Your task to perform on an android device: Go to eBay Image 0: 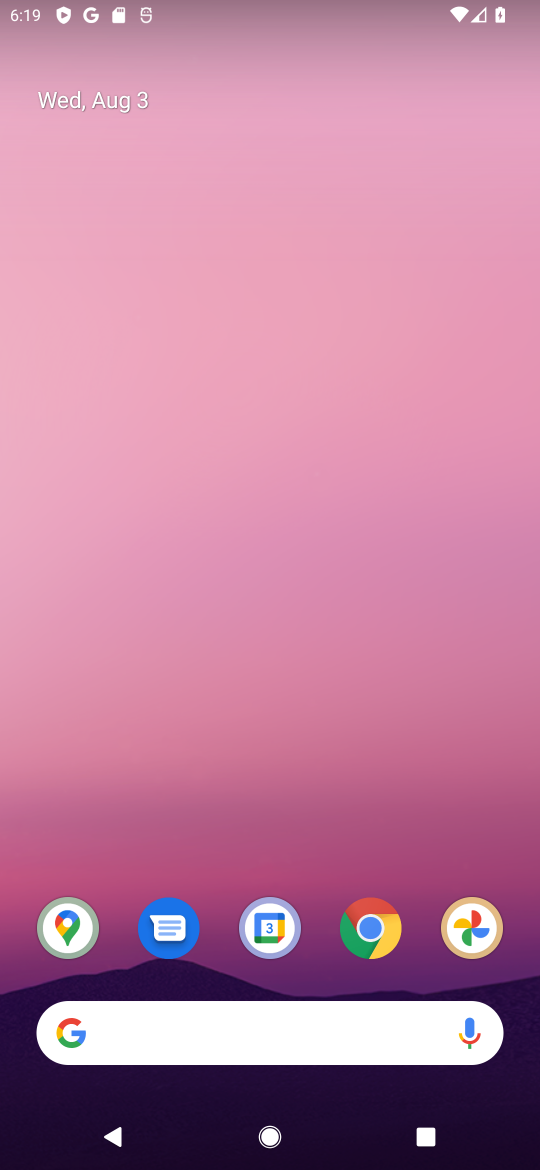
Step 0: press home button
Your task to perform on an android device: Go to eBay Image 1: 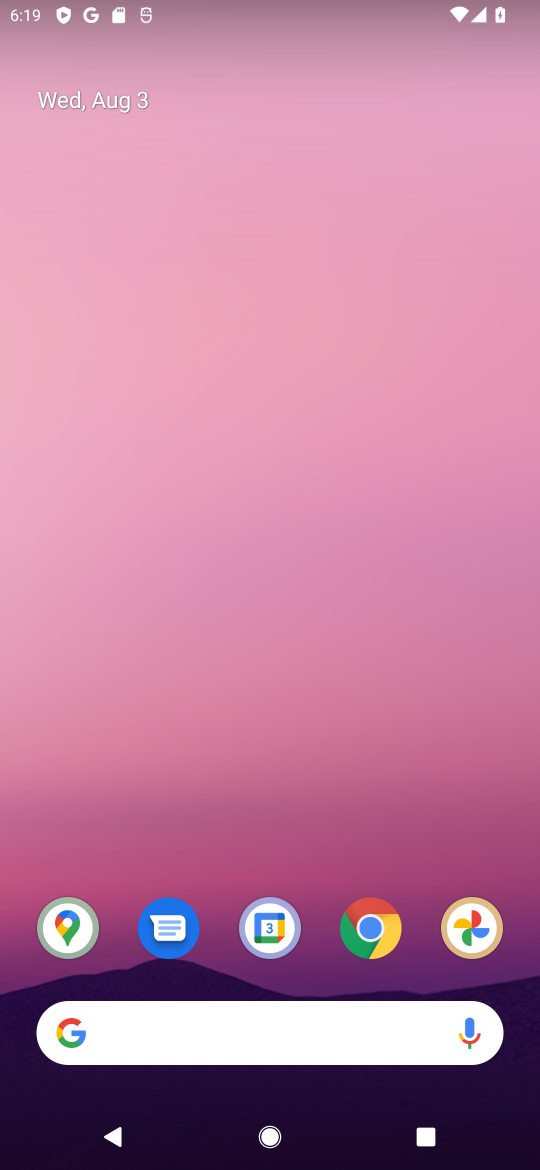
Step 1: drag from (398, 826) to (386, 58)
Your task to perform on an android device: Go to eBay Image 2: 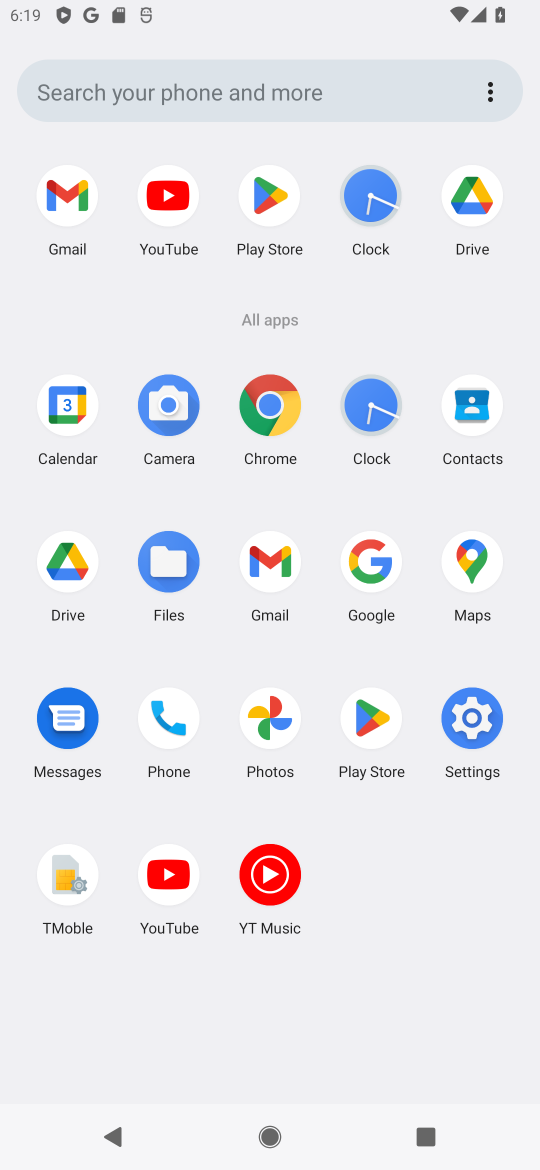
Step 2: click (285, 401)
Your task to perform on an android device: Go to eBay Image 3: 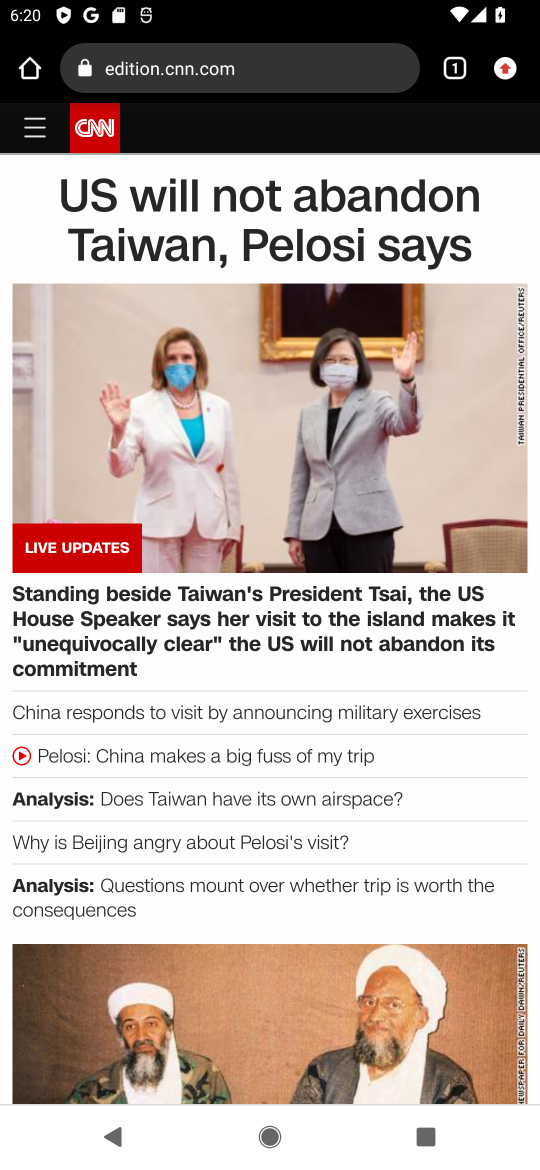
Step 3: click (311, 60)
Your task to perform on an android device: Go to eBay Image 4: 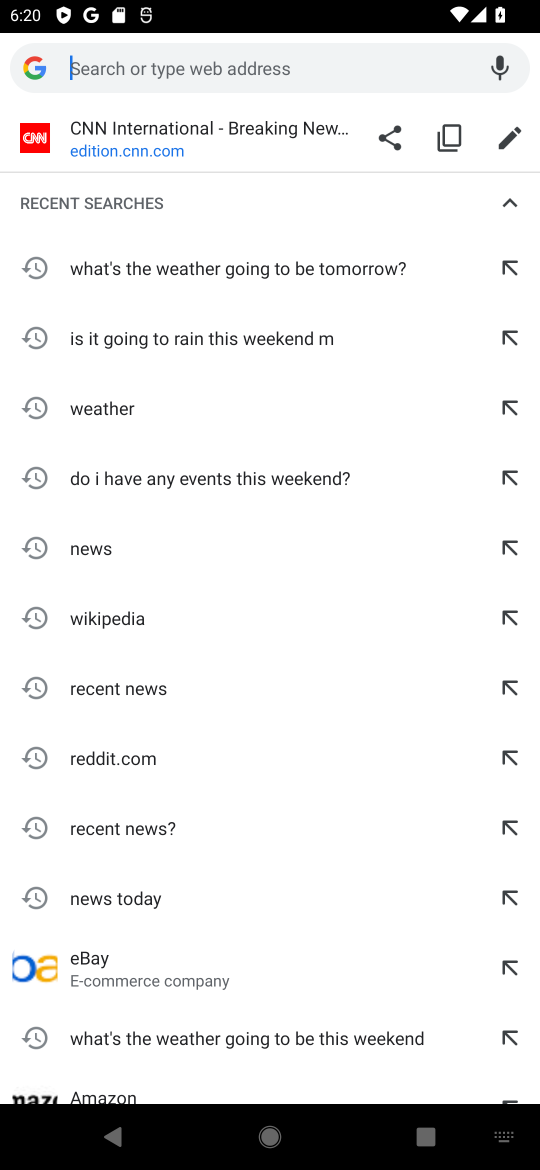
Step 4: type "ebay"
Your task to perform on an android device: Go to eBay Image 5: 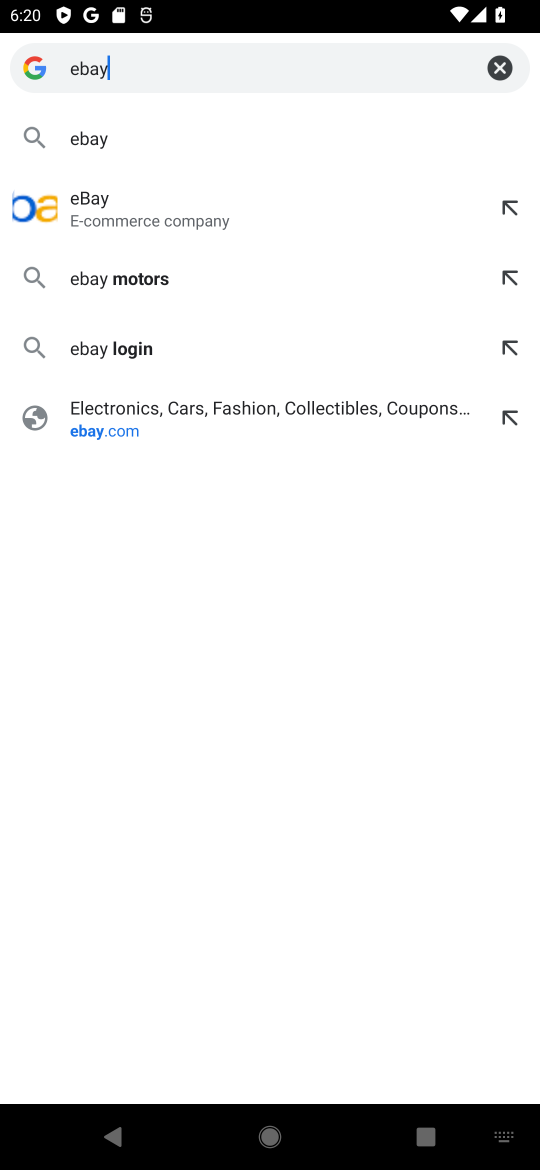
Step 5: click (291, 154)
Your task to perform on an android device: Go to eBay Image 6: 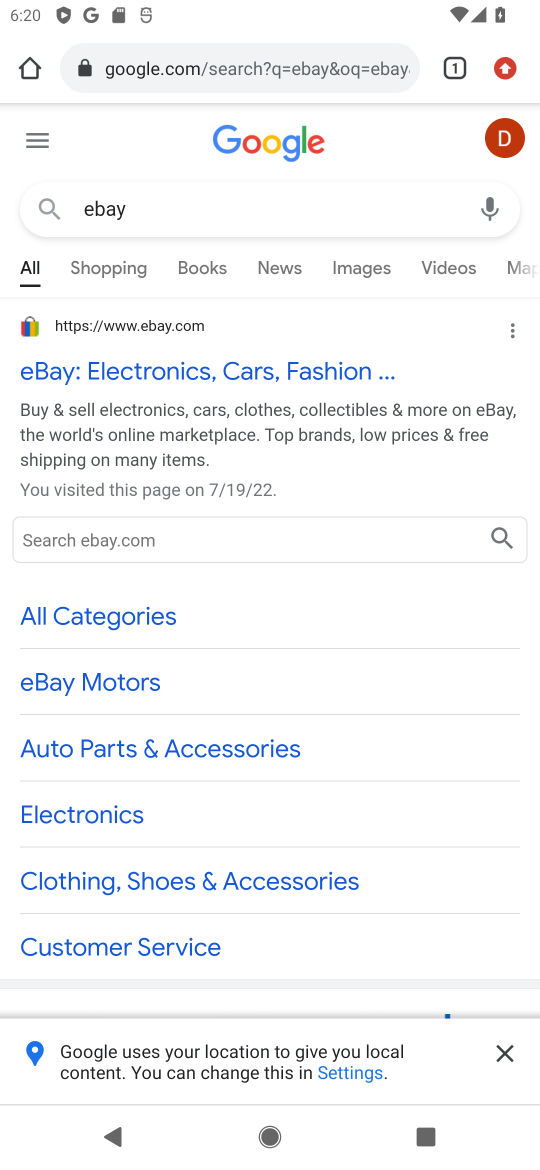
Step 6: task complete